Your task to perform on an android device: What is the recent news? Image 0: 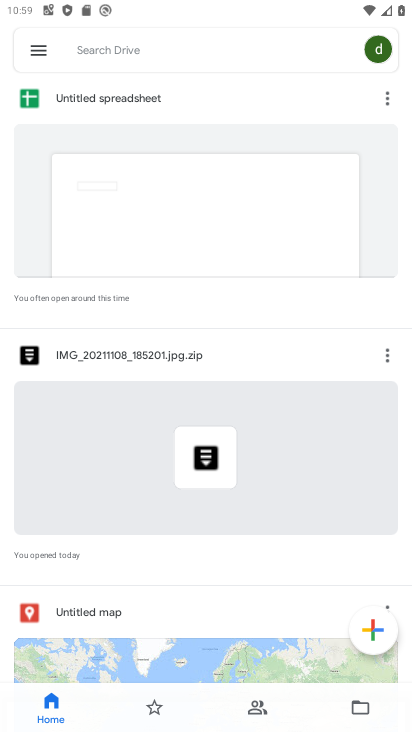
Step 0: press home button
Your task to perform on an android device: What is the recent news? Image 1: 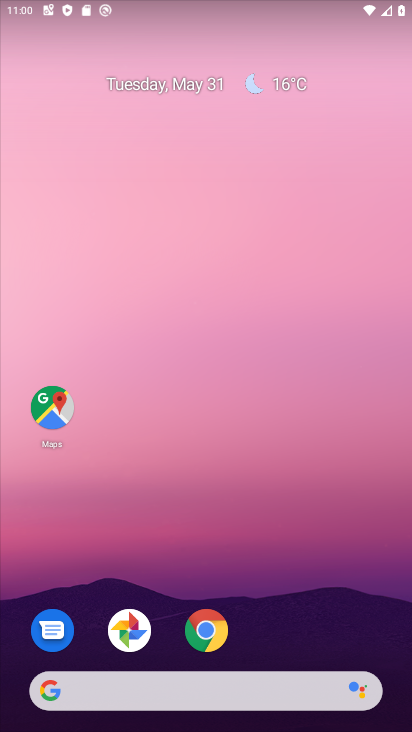
Step 1: click (203, 630)
Your task to perform on an android device: What is the recent news? Image 2: 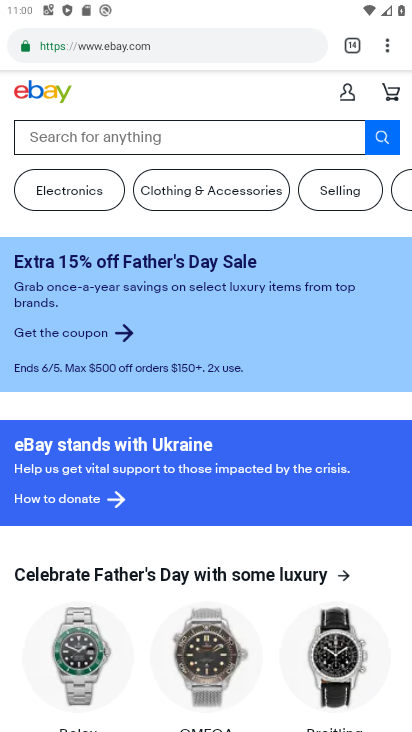
Step 2: click (379, 49)
Your task to perform on an android device: What is the recent news? Image 3: 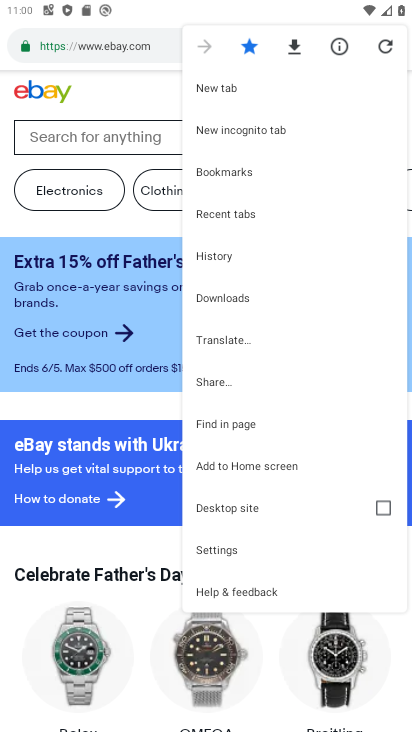
Step 3: click (233, 84)
Your task to perform on an android device: What is the recent news? Image 4: 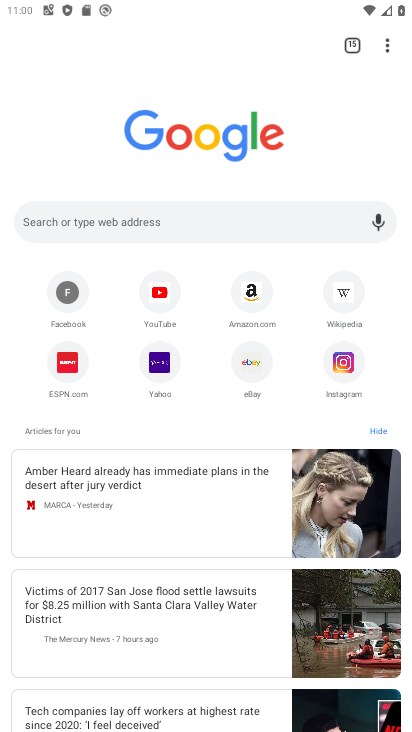
Step 4: click (188, 203)
Your task to perform on an android device: What is the recent news? Image 5: 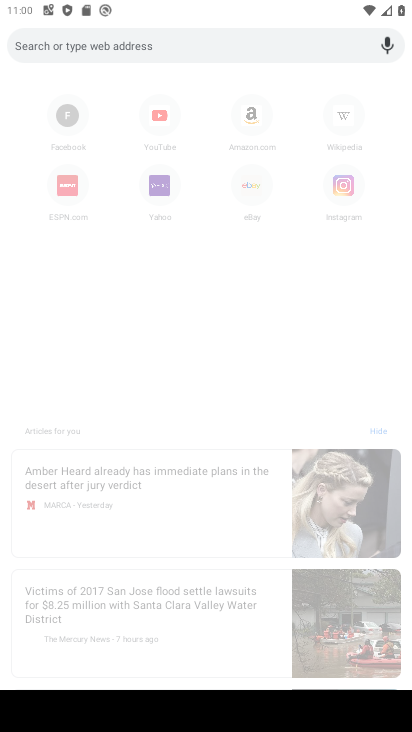
Step 5: type "What is the recent news?"
Your task to perform on an android device: What is the recent news? Image 6: 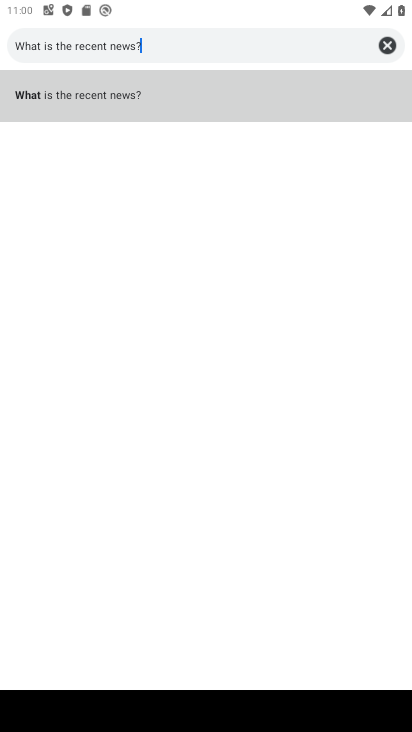
Step 6: click (149, 84)
Your task to perform on an android device: What is the recent news? Image 7: 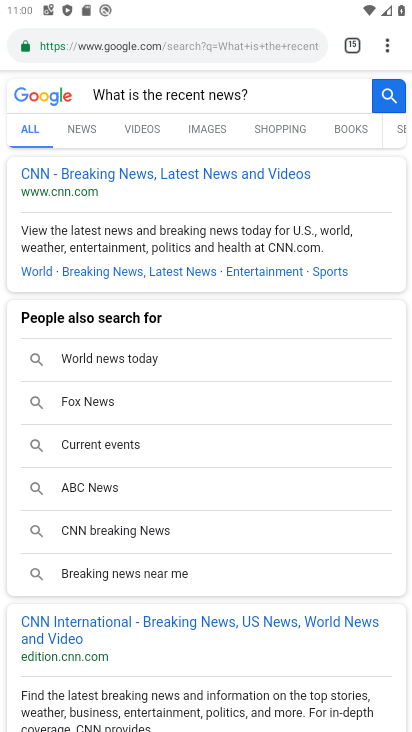
Step 7: task complete